Your task to perform on an android device: open chrome privacy settings Image 0: 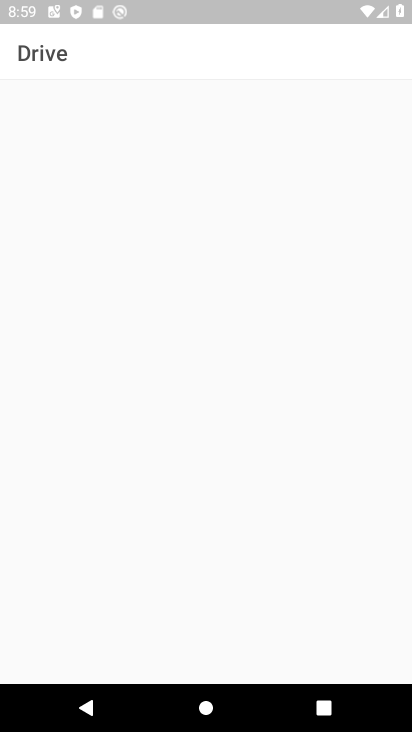
Step 0: press home button
Your task to perform on an android device: open chrome privacy settings Image 1: 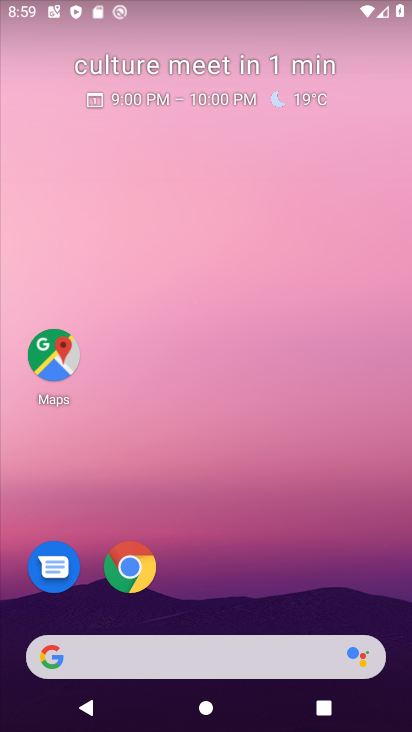
Step 1: click (134, 563)
Your task to perform on an android device: open chrome privacy settings Image 2: 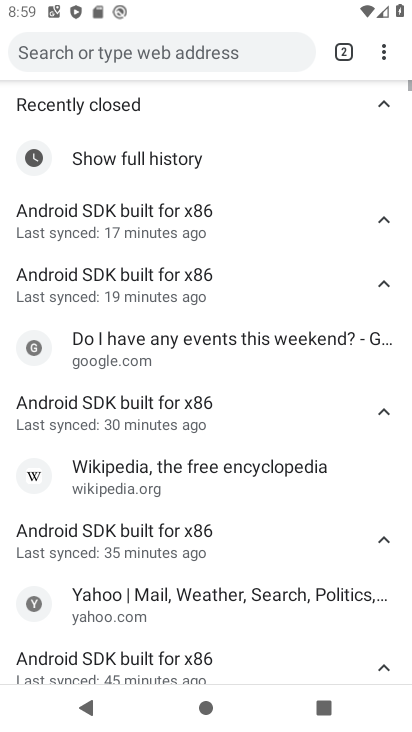
Step 2: click (393, 44)
Your task to perform on an android device: open chrome privacy settings Image 3: 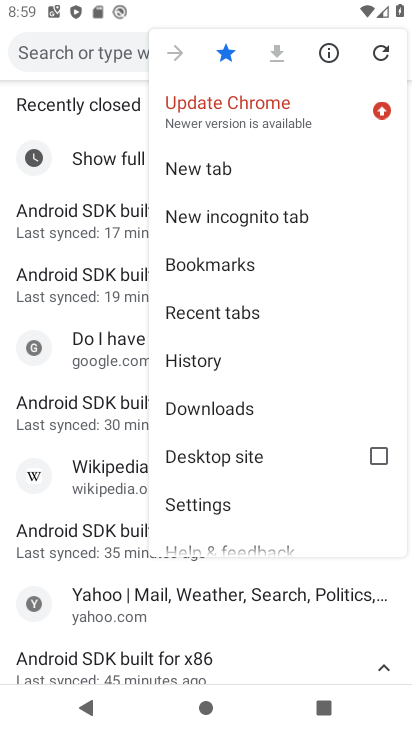
Step 3: drag from (182, 533) to (282, 68)
Your task to perform on an android device: open chrome privacy settings Image 4: 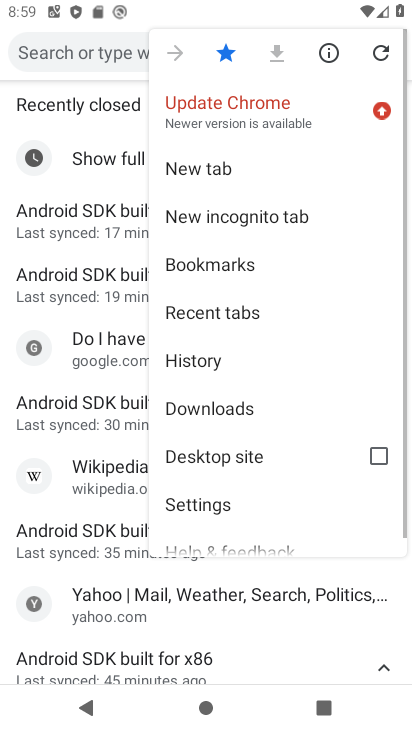
Step 4: click (220, 491)
Your task to perform on an android device: open chrome privacy settings Image 5: 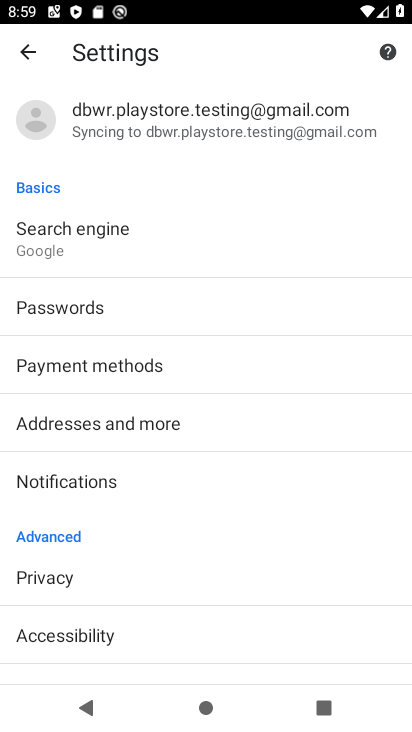
Step 5: click (111, 582)
Your task to perform on an android device: open chrome privacy settings Image 6: 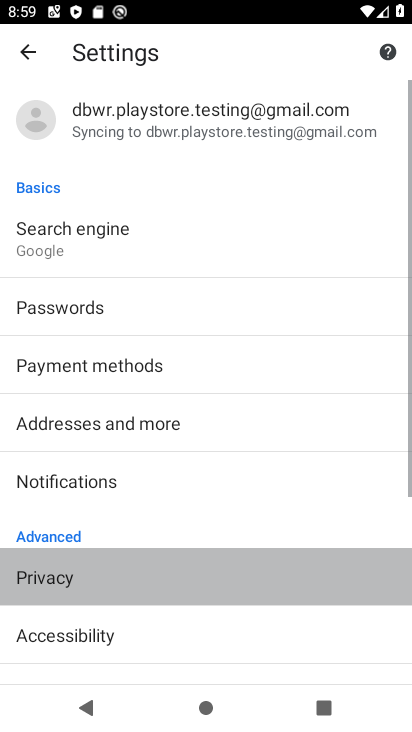
Step 6: click (121, 588)
Your task to perform on an android device: open chrome privacy settings Image 7: 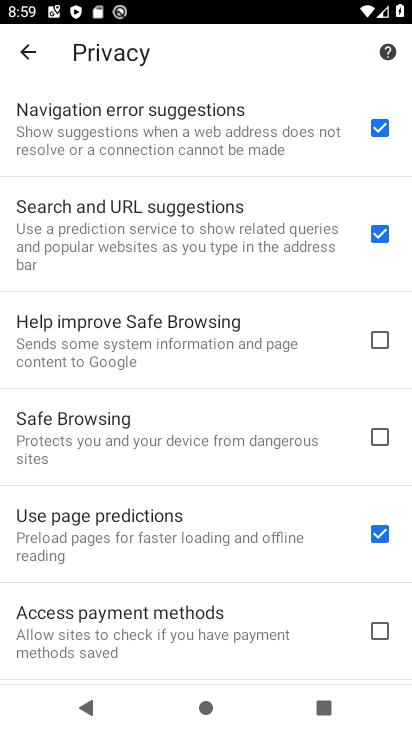
Step 7: task complete